Your task to perform on an android device: Open settings Image 0: 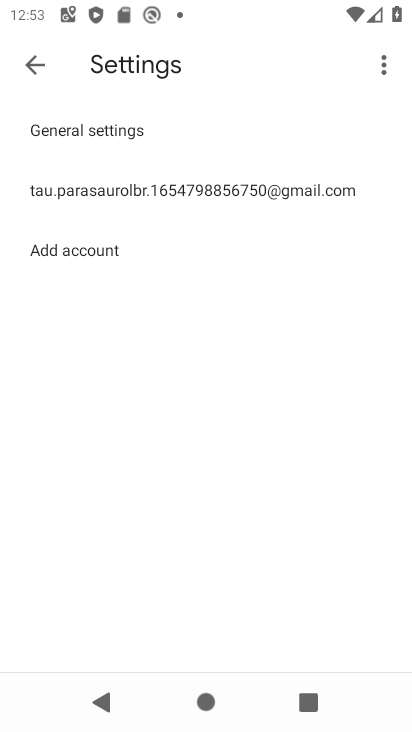
Step 0: press home button
Your task to perform on an android device: Open settings Image 1: 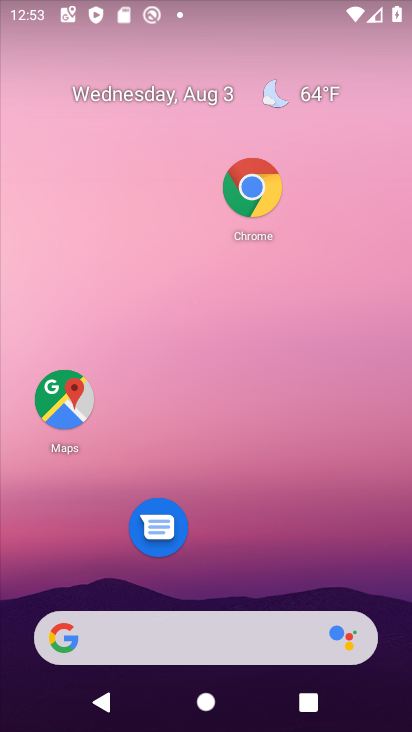
Step 1: drag from (240, 562) to (246, 10)
Your task to perform on an android device: Open settings Image 2: 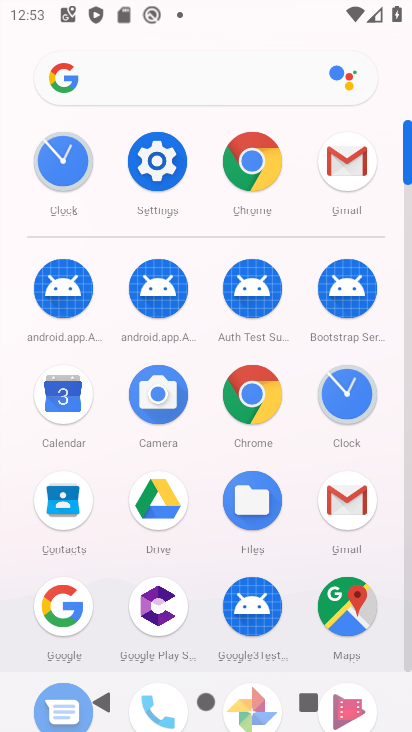
Step 2: click (168, 171)
Your task to perform on an android device: Open settings Image 3: 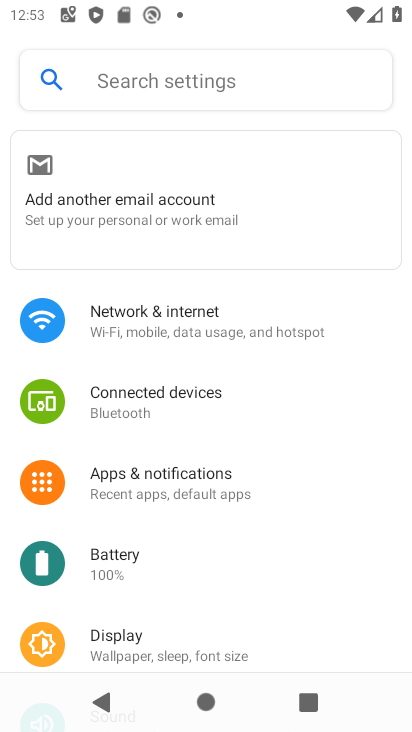
Step 3: task complete